Your task to perform on an android device: open chrome privacy settings Image 0: 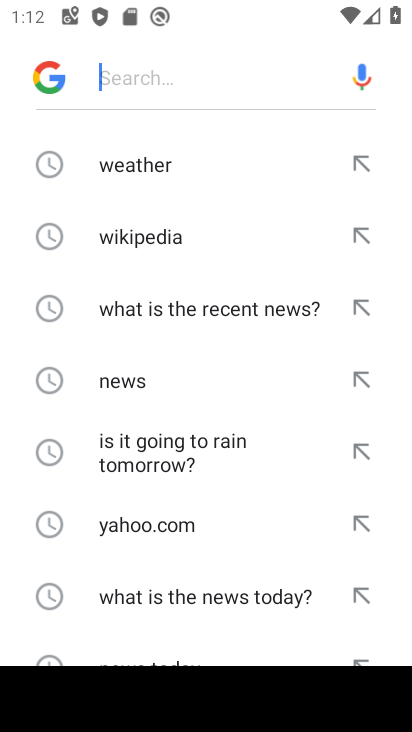
Step 0: press back button
Your task to perform on an android device: open chrome privacy settings Image 1: 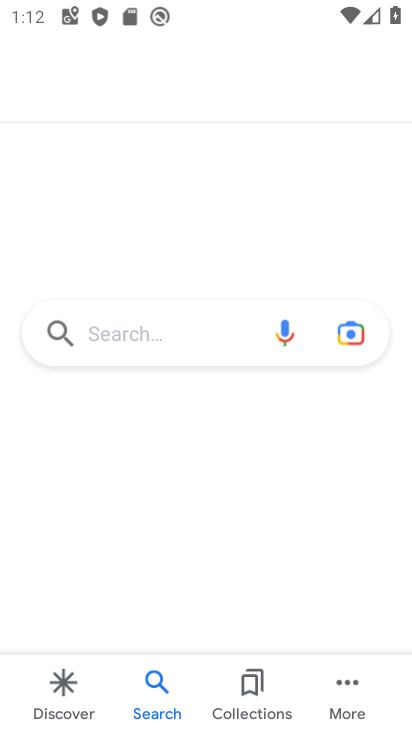
Step 1: press home button
Your task to perform on an android device: open chrome privacy settings Image 2: 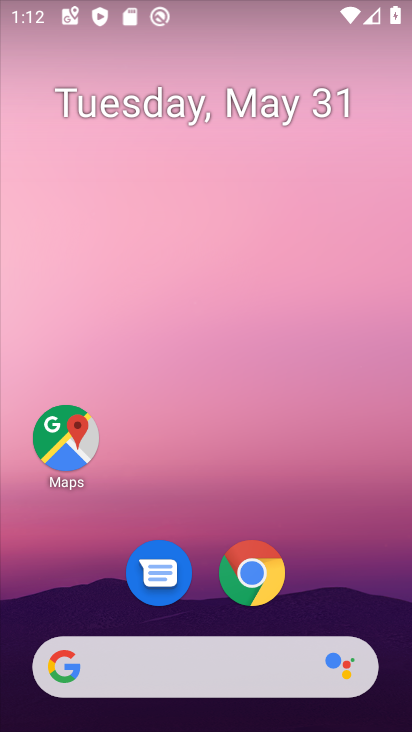
Step 2: drag from (365, 574) to (377, 156)
Your task to perform on an android device: open chrome privacy settings Image 3: 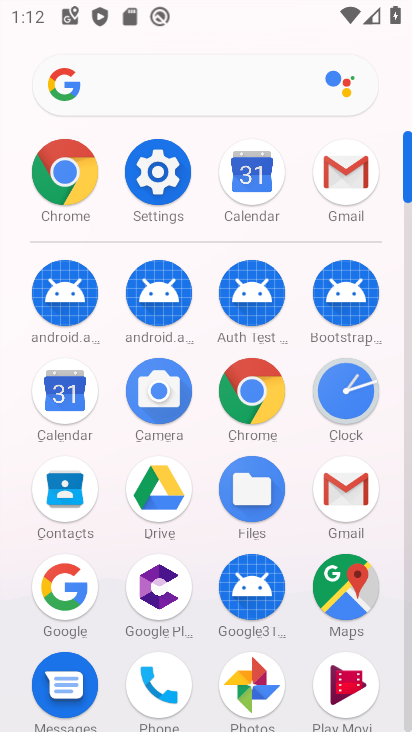
Step 3: click (260, 407)
Your task to perform on an android device: open chrome privacy settings Image 4: 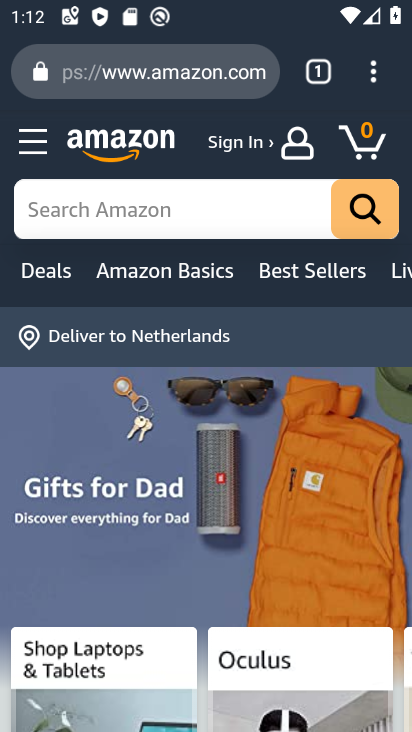
Step 4: click (373, 82)
Your task to perform on an android device: open chrome privacy settings Image 5: 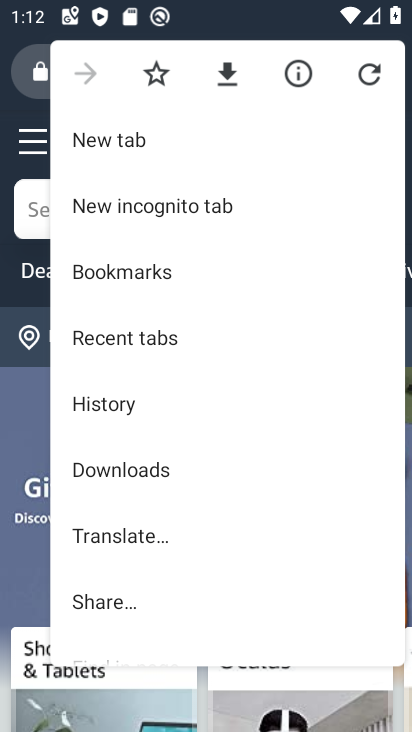
Step 5: drag from (287, 466) to (307, 374)
Your task to perform on an android device: open chrome privacy settings Image 6: 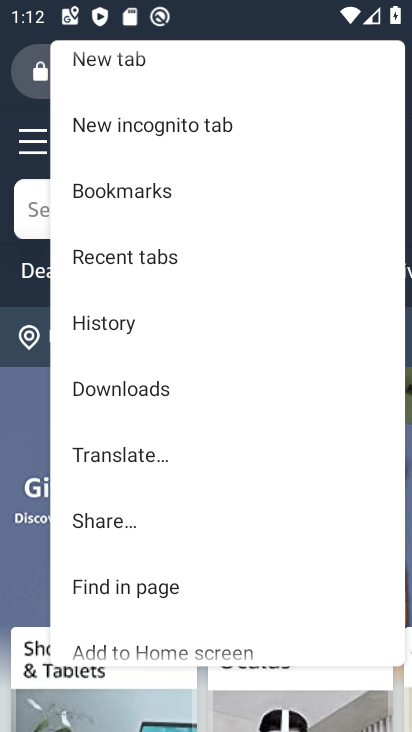
Step 6: drag from (283, 520) to (301, 369)
Your task to perform on an android device: open chrome privacy settings Image 7: 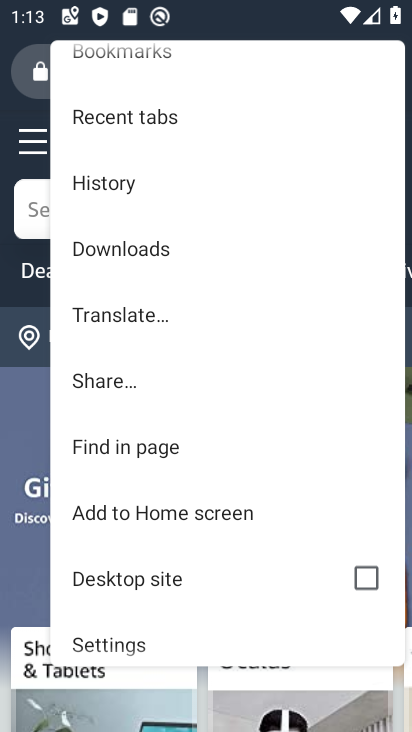
Step 7: drag from (284, 554) to (311, 395)
Your task to perform on an android device: open chrome privacy settings Image 8: 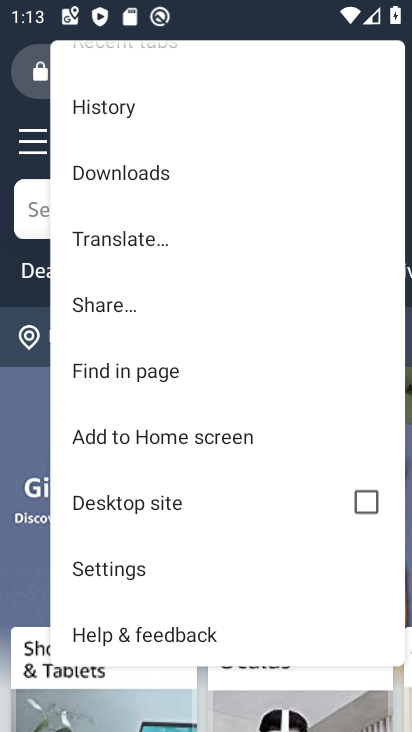
Step 8: click (157, 558)
Your task to perform on an android device: open chrome privacy settings Image 9: 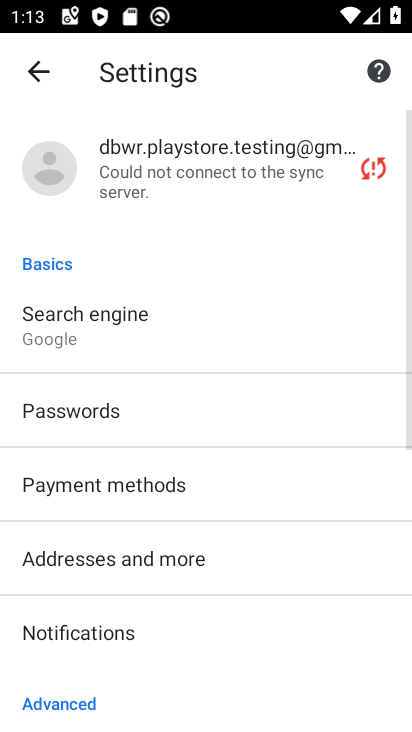
Step 9: drag from (272, 557) to (286, 456)
Your task to perform on an android device: open chrome privacy settings Image 10: 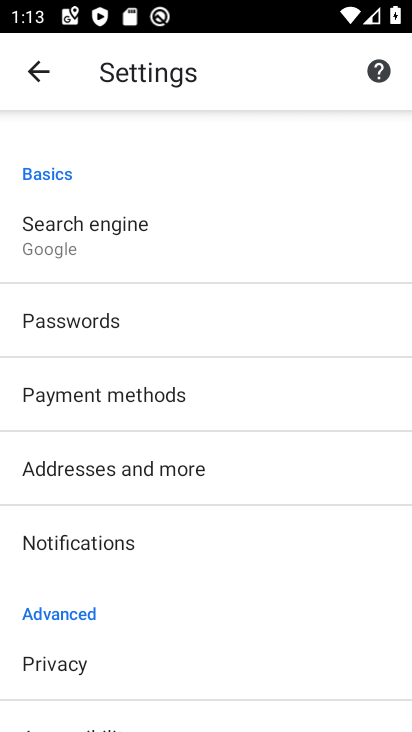
Step 10: drag from (299, 598) to (311, 497)
Your task to perform on an android device: open chrome privacy settings Image 11: 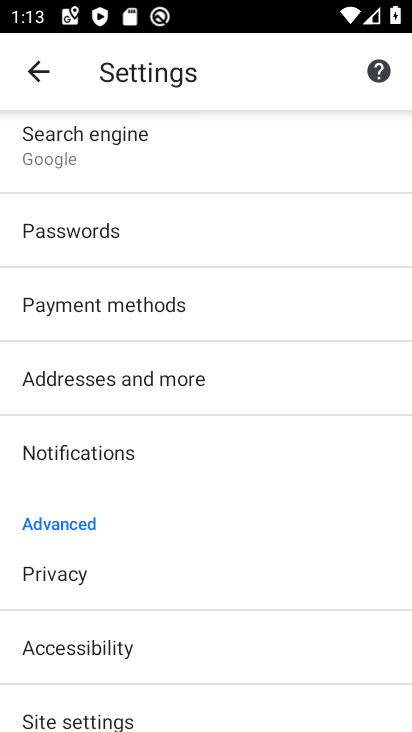
Step 11: drag from (312, 660) to (313, 529)
Your task to perform on an android device: open chrome privacy settings Image 12: 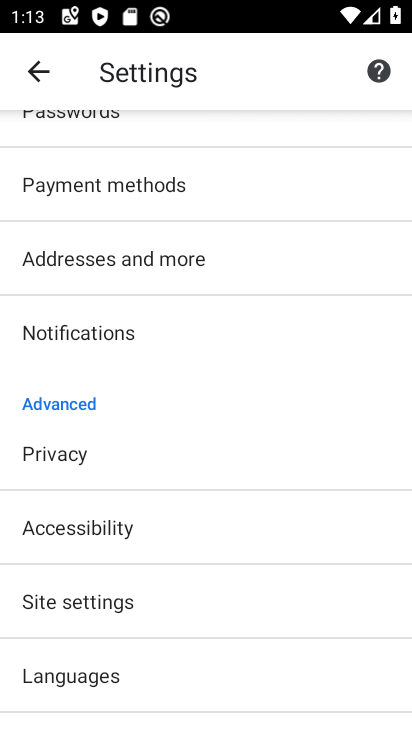
Step 12: drag from (319, 608) to (344, 467)
Your task to perform on an android device: open chrome privacy settings Image 13: 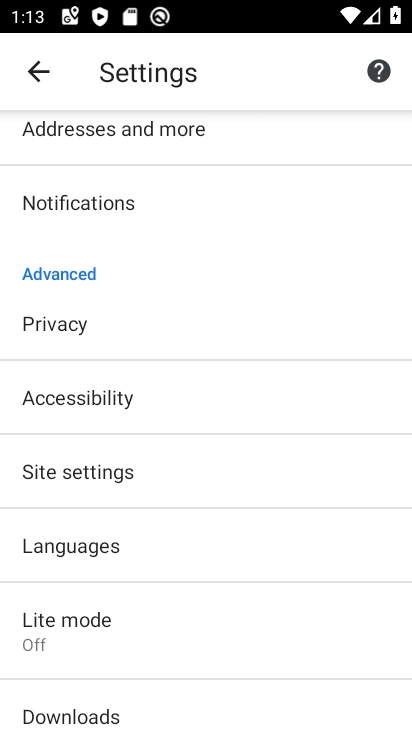
Step 13: drag from (309, 627) to (325, 491)
Your task to perform on an android device: open chrome privacy settings Image 14: 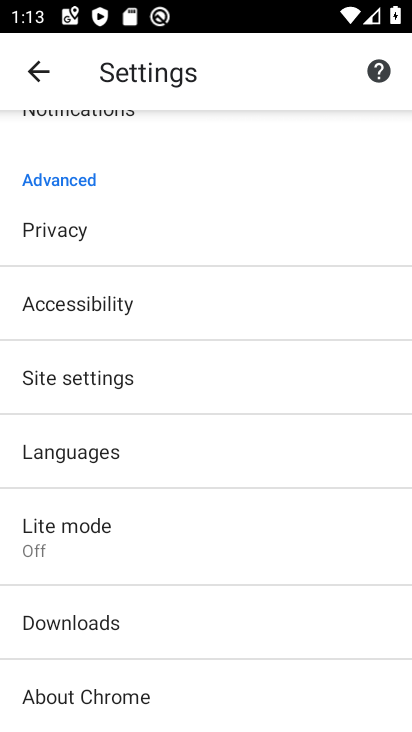
Step 14: drag from (334, 398) to (323, 491)
Your task to perform on an android device: open chrome privacy settings Image 15: 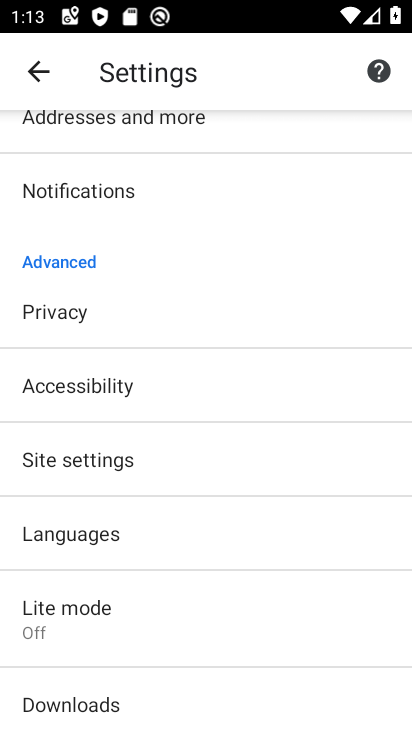
Step 15: drag from (310, 369) to (313, 473)
Your task to perform on an android device: open chrome privacy settings Image 16: 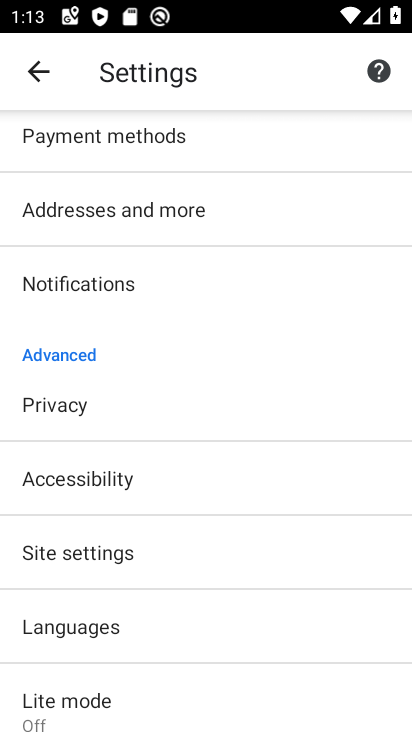
Step 16: drag from (310, 310) to (291, 467)
Your task to perform on an android device: open chrome privacy settings Image 17: 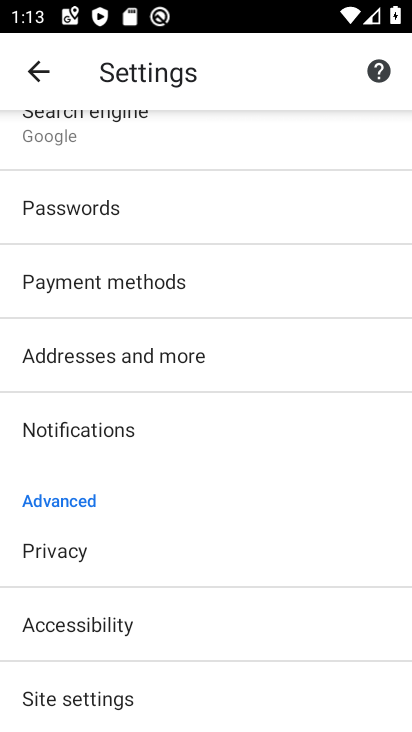
Step 17: click (181, 569)
Your task to perform on an android device: open chrome privacy settings Image 18: 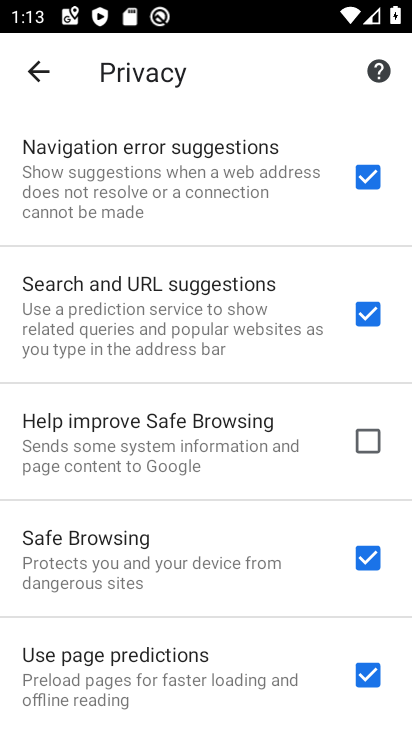
Step 18: task complete